Your task to perform on an android device: allow notifications from all sites in the chrome app Image 0: 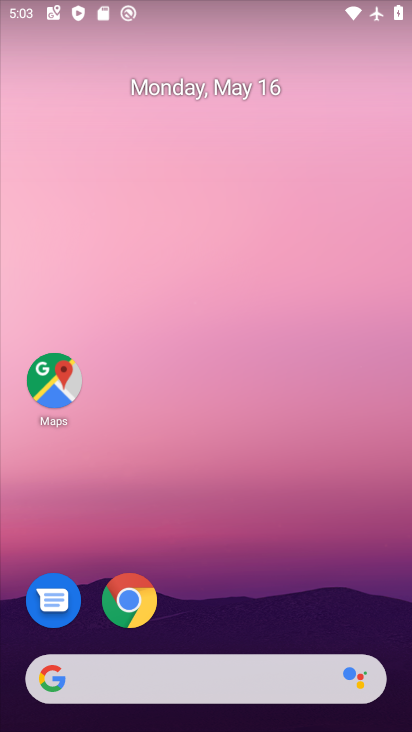
Step 0: click (132, 612)
Your task to perform on an android device: allow notifications from all sites in the chrome app Image 1: 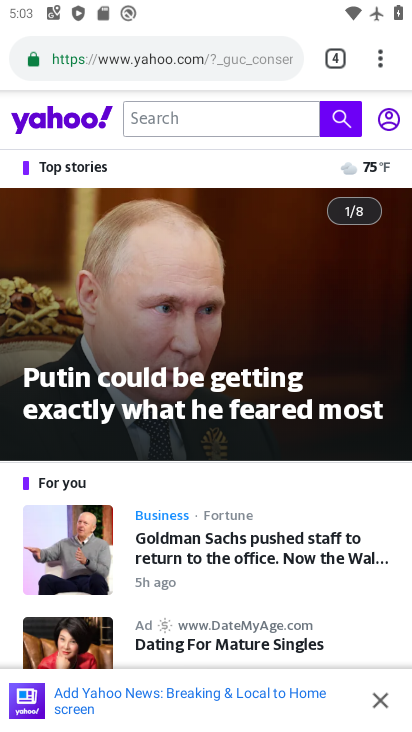
Step 1: click (380, 61)
Your task to perform on an android device: allow notifications from all sites in the chrome app Image 2: 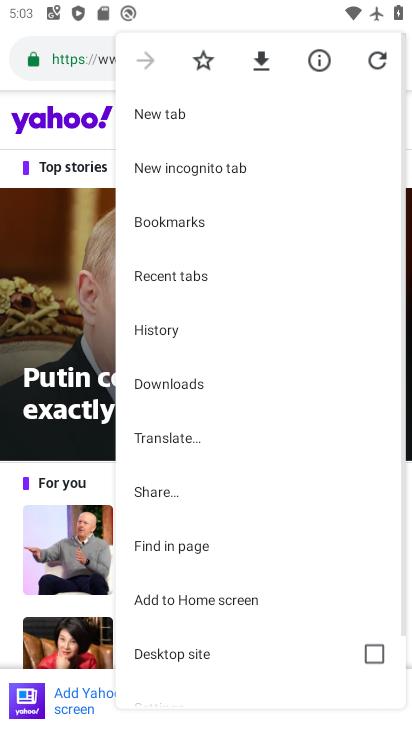
Step 2: drag from (202, 665) to (182, 229)
Your task to perform on an android device: allow notifications from all sites in the chrome app Image 3: 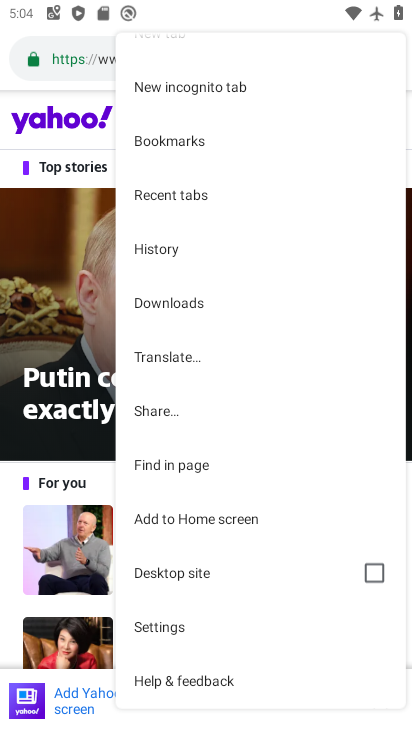
Step 3: click (171, 636)
Your task to perform on an android device: allow notifications from all sites in the chrome app Image 4: 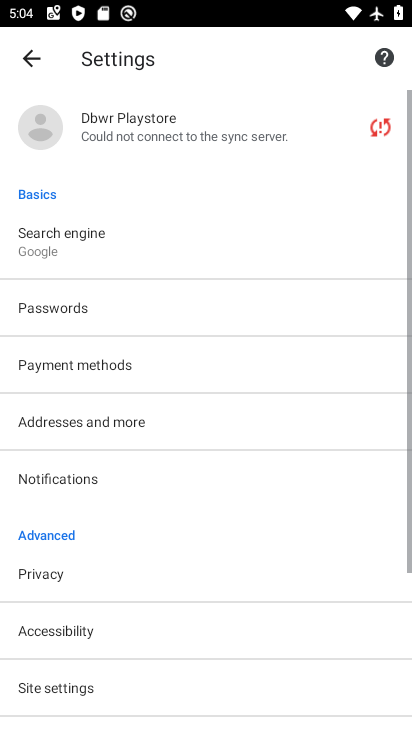
Step 4: drag from (209, 609) to (175, 92)
Your task to perform on an android device: allow notifications from all sites in the chrome app Image 5: 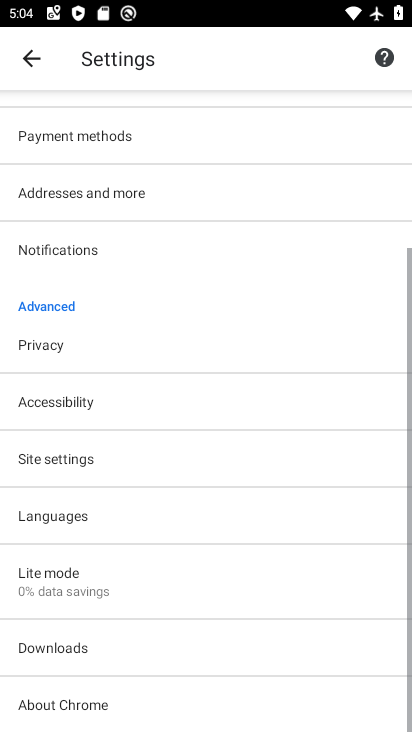
Step 5: click (60, 461)
Your task to perform on an android device: allow notifications from all sites in the chrome app Image 6: 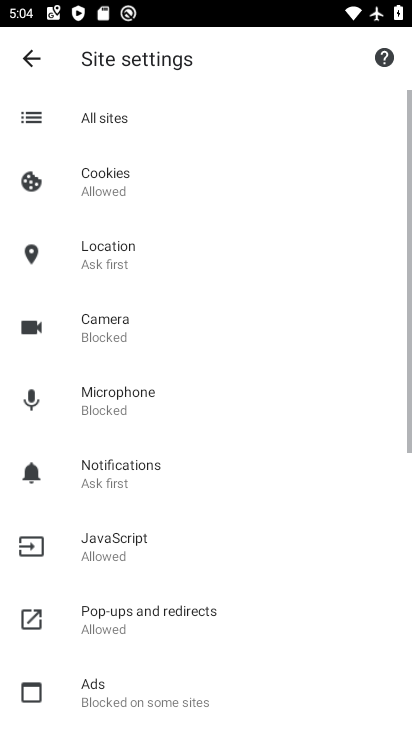
Step 6: click (126, 474)
Your task to perform on an android device: allow notifications from all sites in the chrome app Image 7: 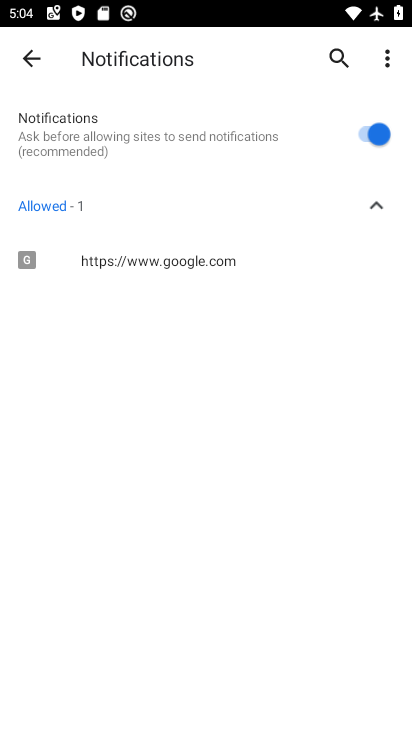
Step 7: task complete